Your task to perform on an android device: Open Youtube and go to "Your channel" Image 0: 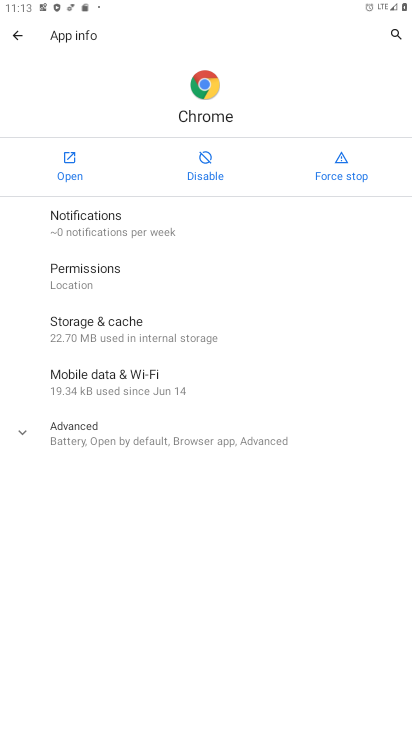
Step 0: press home button
Your task to perform on an android device: Open Youtube and go to "Your channel" Image 1: 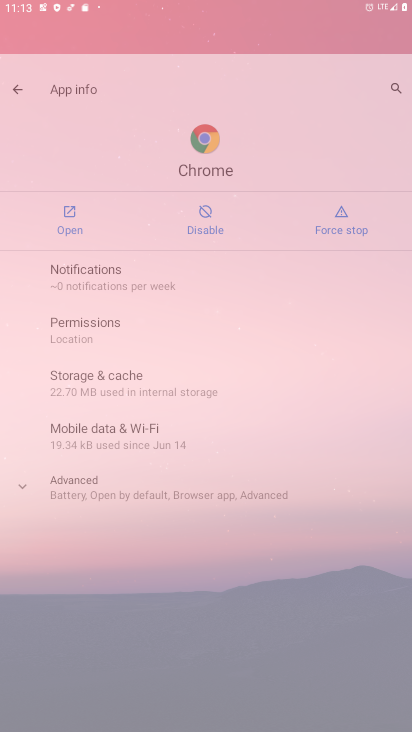
Step 1: drag from (218, 570) to (223, 112)
Your task to perform on an android device: Open Youtube and go to "Your channel" Image 2: 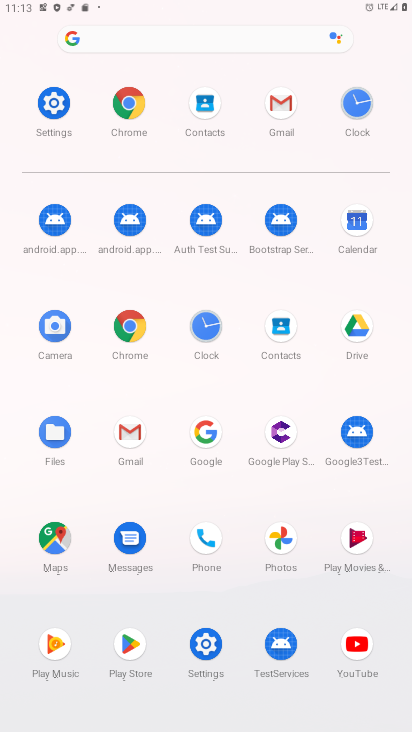
Step 2: click (358, 649)
Your task to perform on an android device: Open Youtube and go to "Your channel" Image 3: 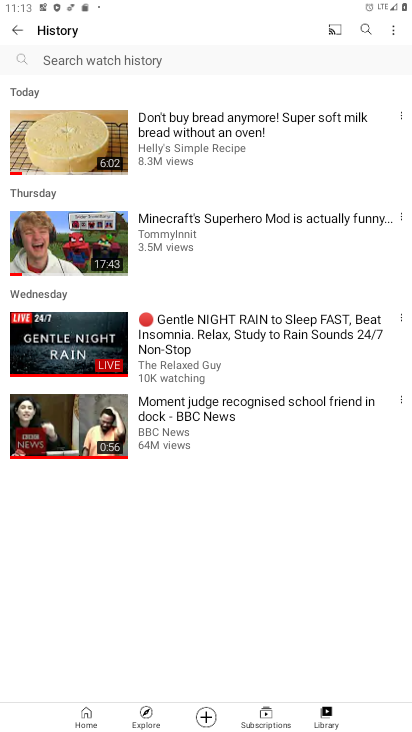
Step 3: click (320, 719)
Your task to perform on an android device: Open Youtube and go to "Your channel" Image 4: 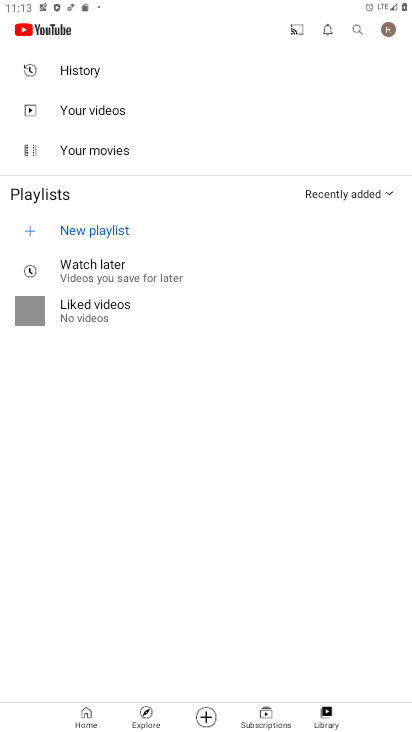
Step 4: click (393, 26)
Your task to perform on an android device: Open Youtube and go to "Your channel" Image 5: 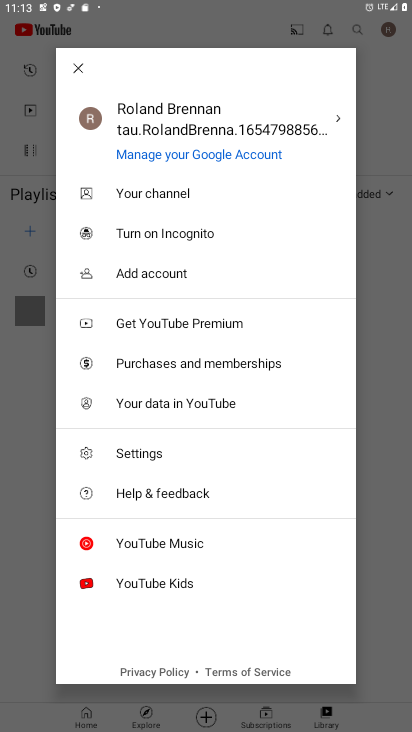
Step 5: click (157, 105)
Your task to perform on an android device: Open Youtube and go to "Your channel" Image 6: 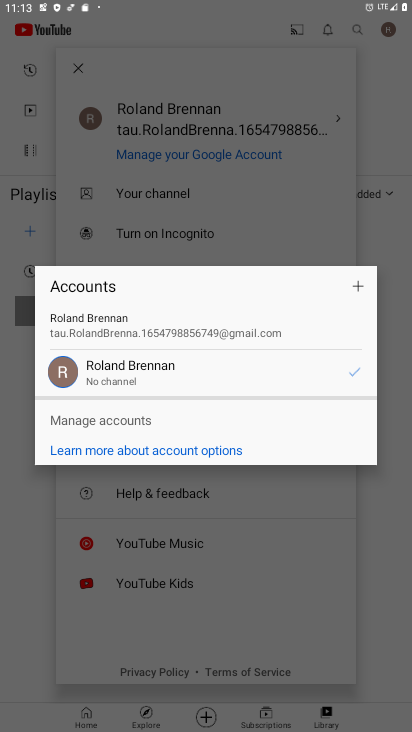
Step 6: task complete